Your task to perform on an android device: turn on priority inbox in the gmail app Image 0: 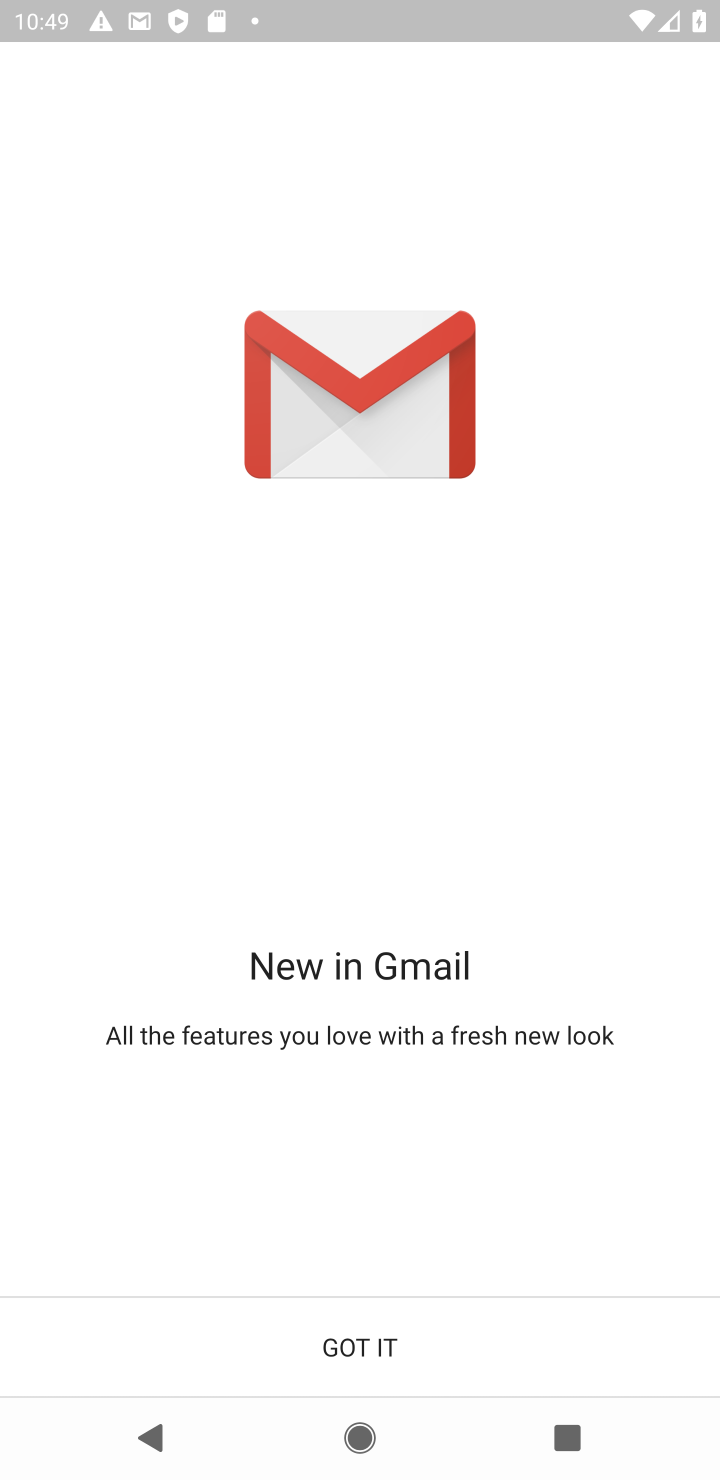
Step 0: click (382, 1342)
Your task to perform on an android device: turn on priority inbox in the gmail app Image 1: 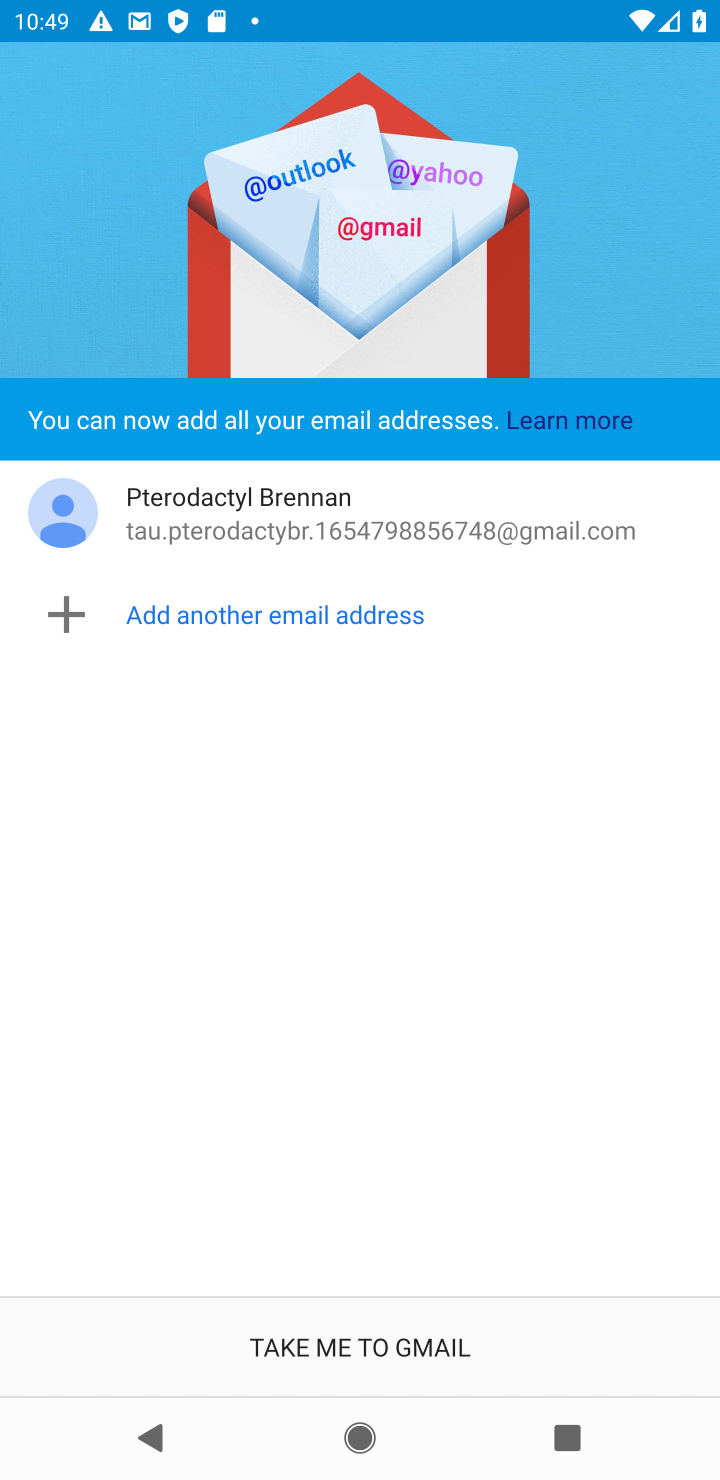
Step 1: click (370, 1340)
Your task to perform on an android device: turn on priority inbox in the gmail app Image 2: 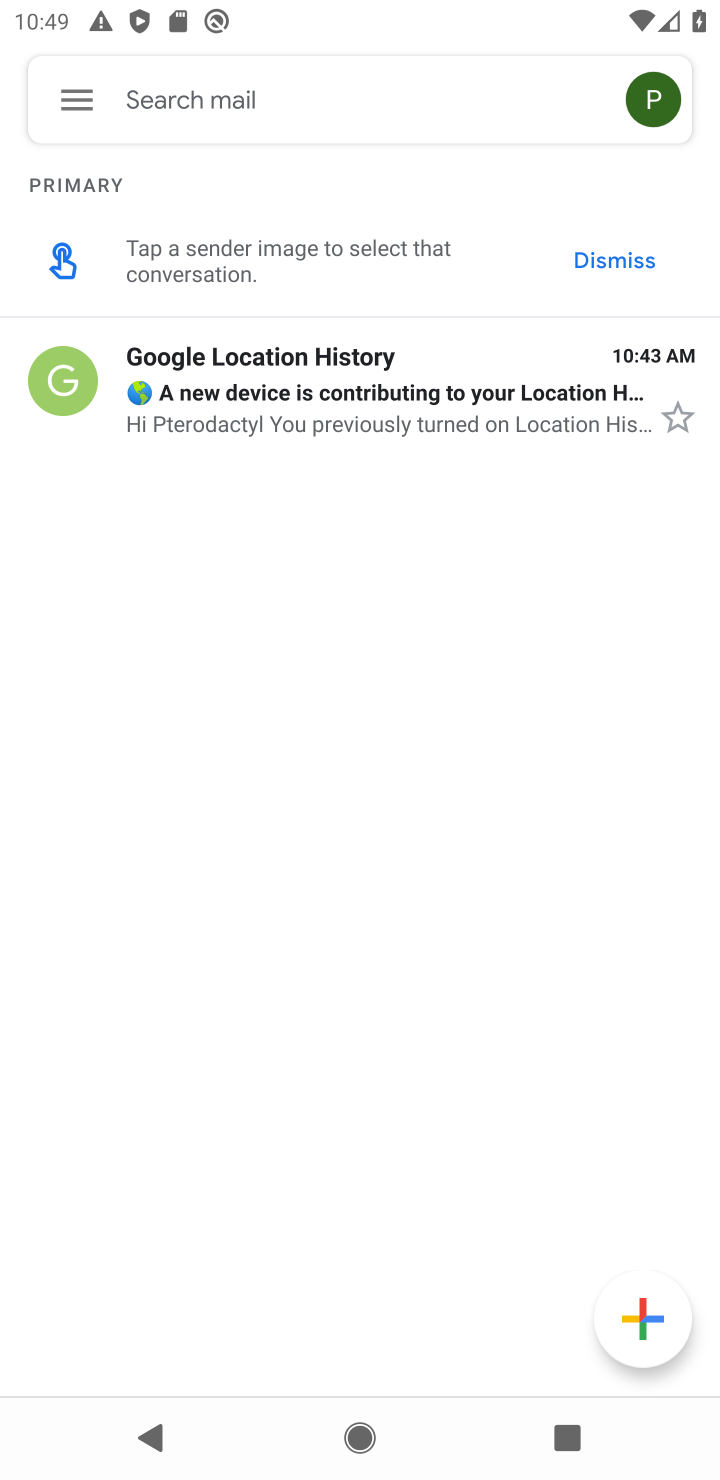
Step 2: click (65, 111)
Your task to perform on an android device: turn on priority inbox in the gmail app Image 3: 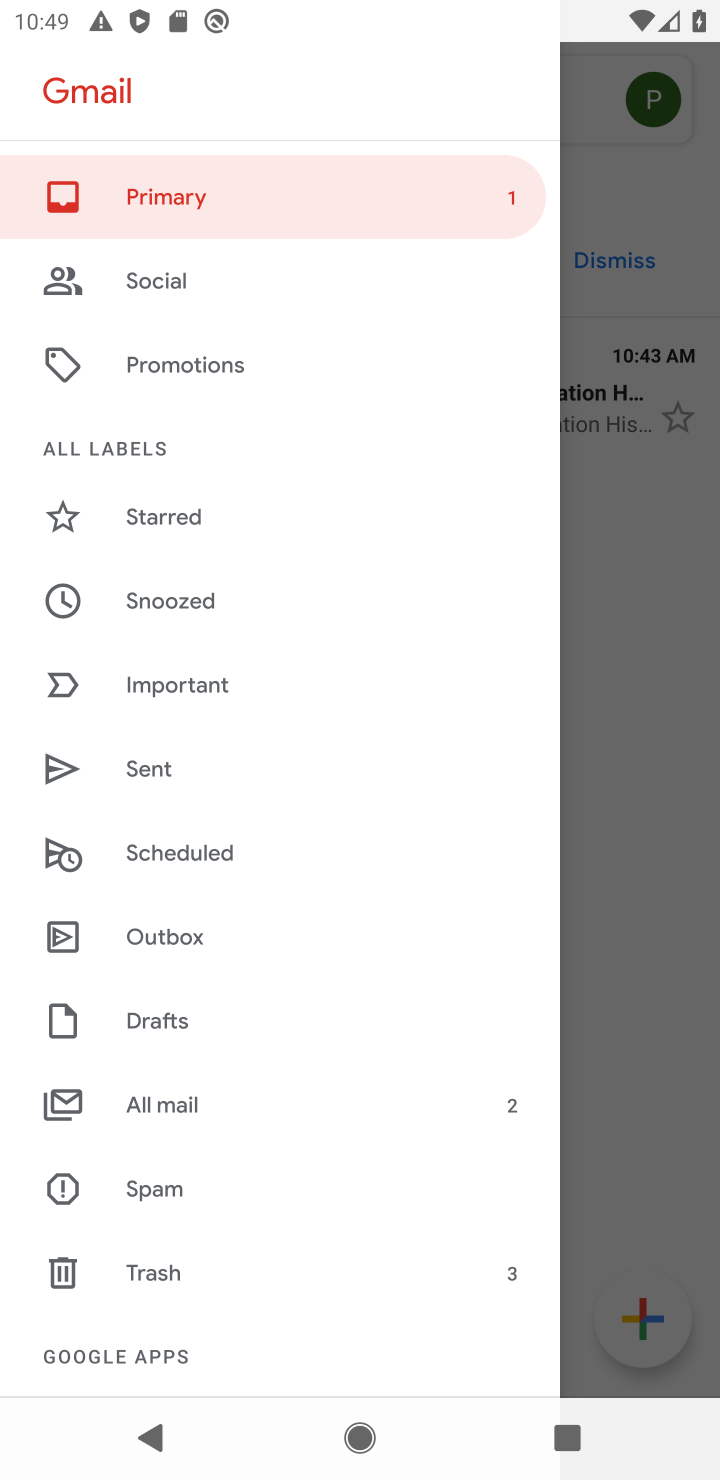
Step 3: drag from (224, 1107) to (224, 515)
Your task to perform on an android device: turn on priority inbox in the gmail app Image 4: 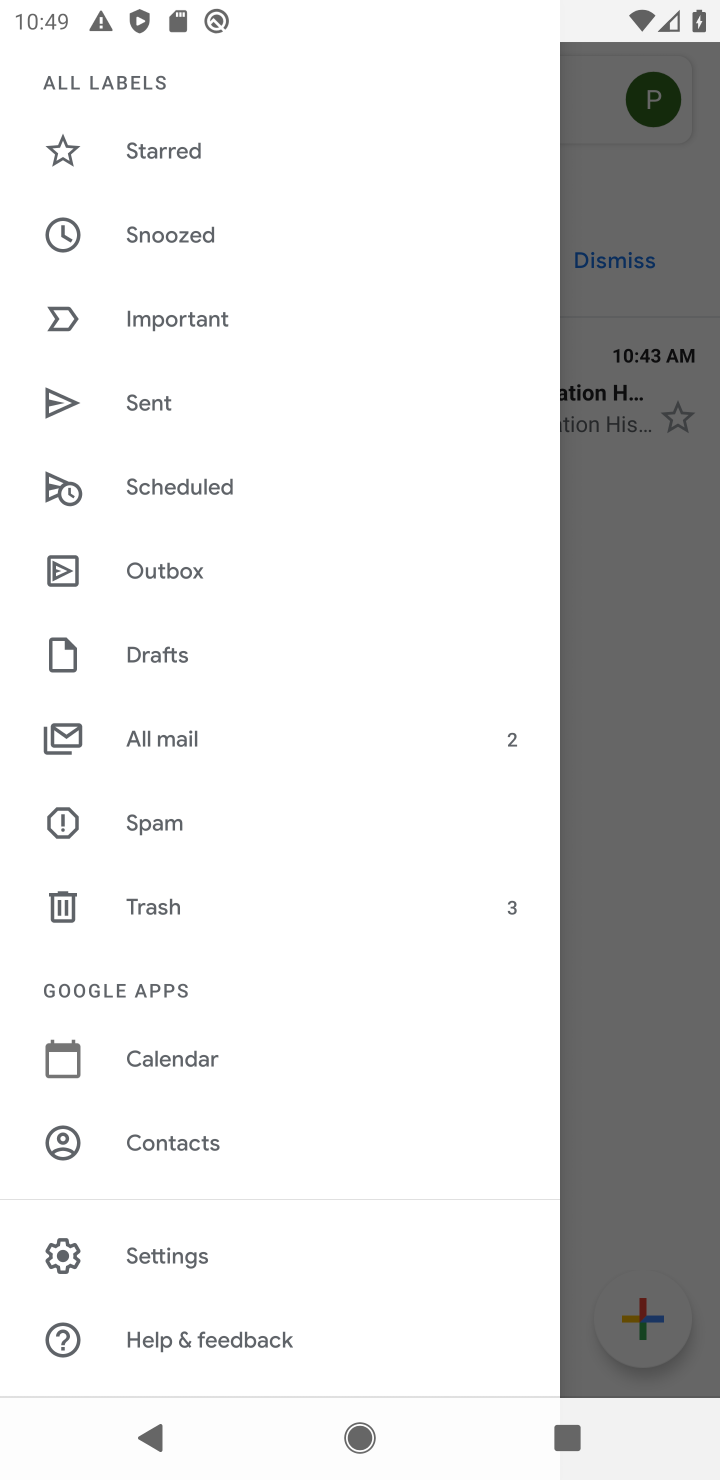
Step 4: click (173, 1265)
Your task to perform on an android device: turn on priority inbox in the gmail app Image 5: 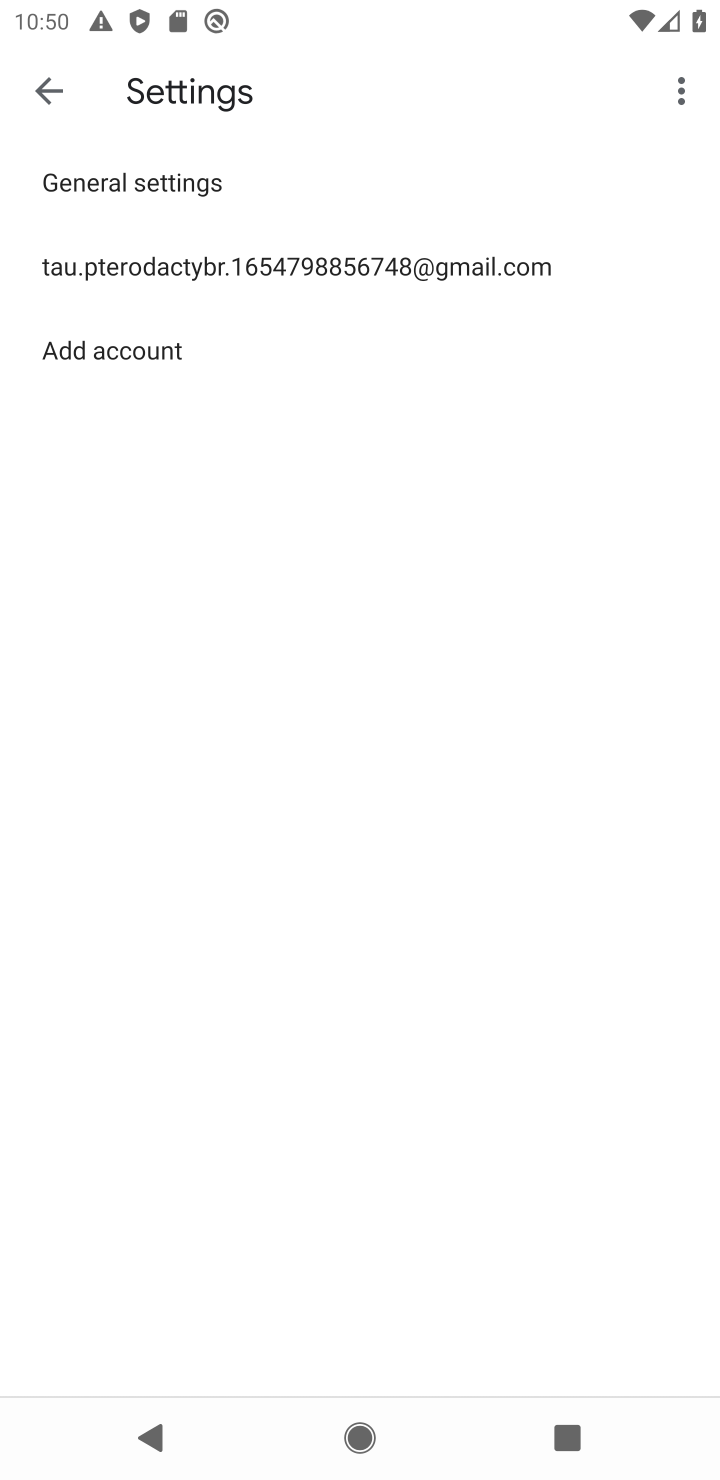
Step 5: click (170, 277)
Your task to perform on an android device: turn on priority inbox in the gmail app Image 6: 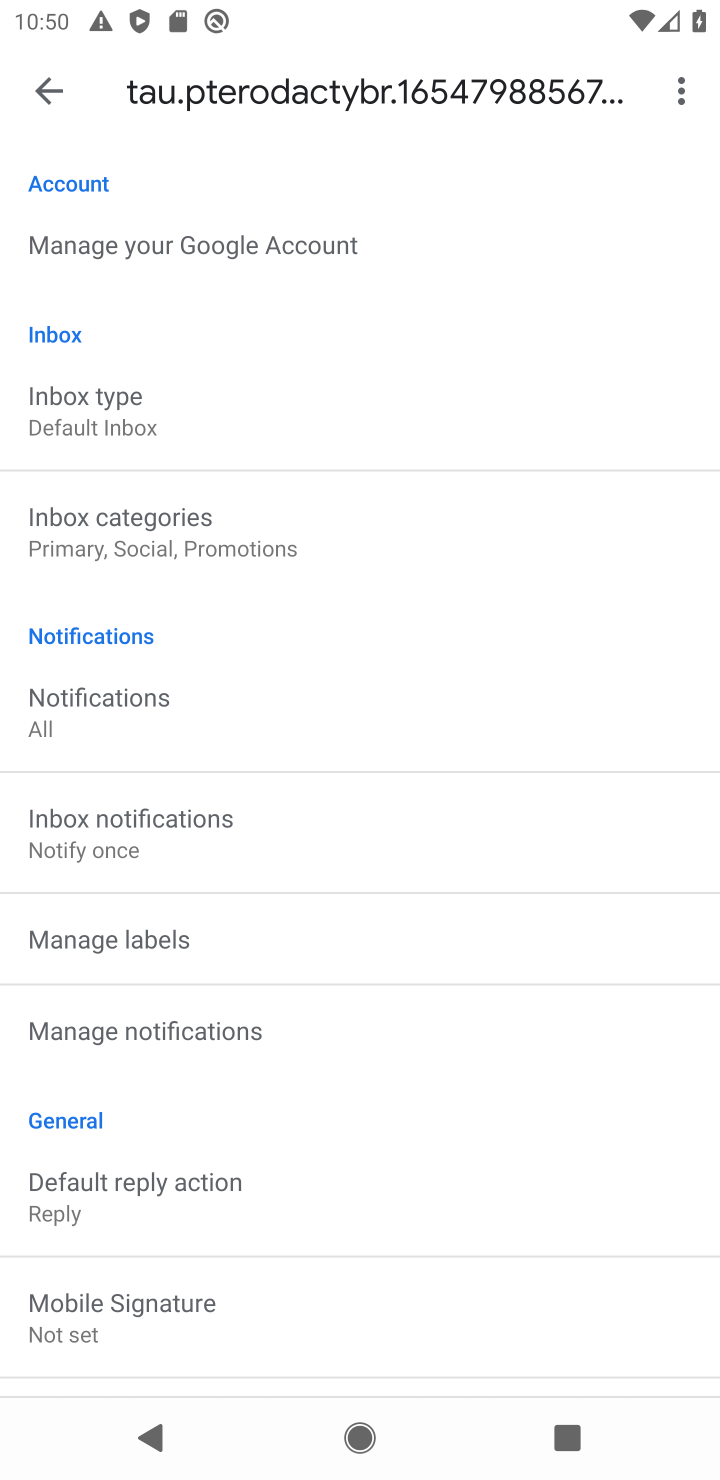
Step 6: click (65, 420)
Your task to perform on an android device: turn on priority inbox in the gmail app Image 7: 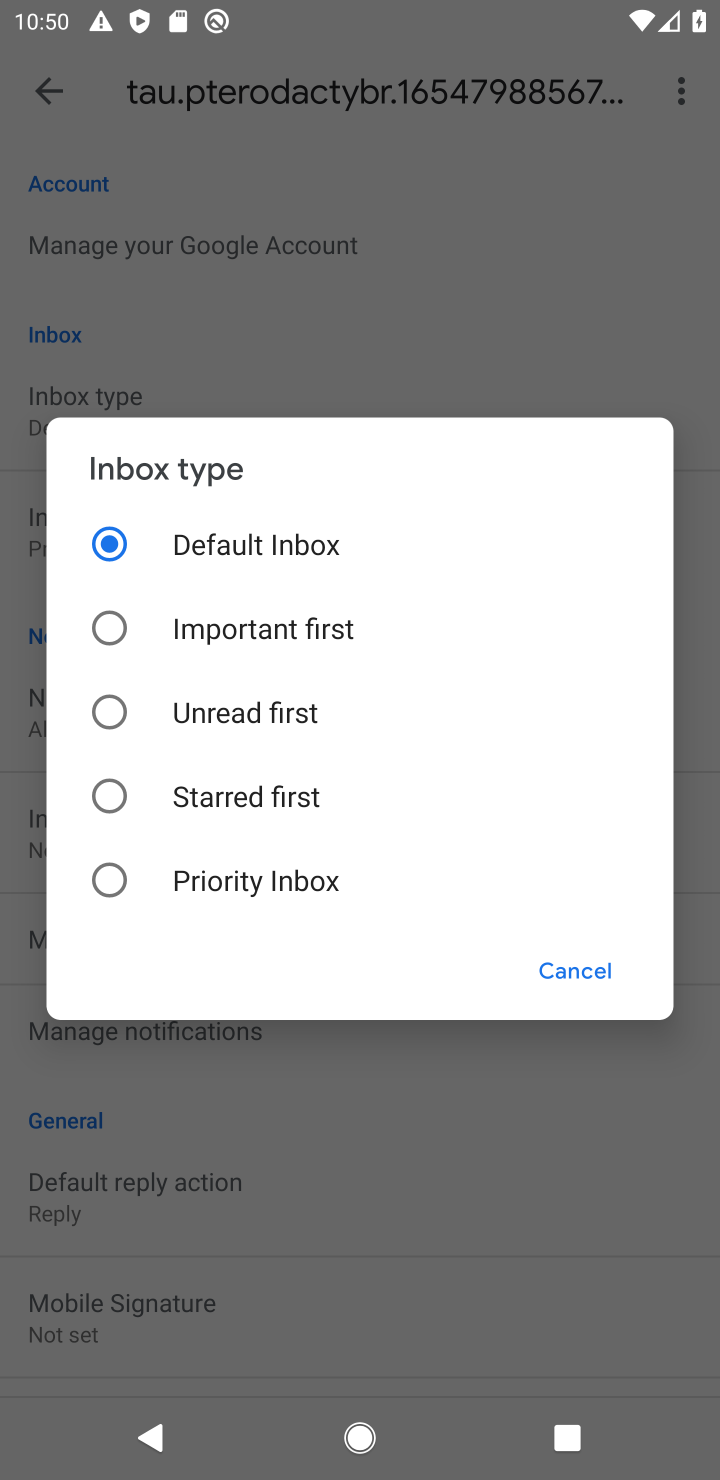
Step 7: click (111, 866)
Your task to perform on an android device: turn on priority inbox in the gmail app Image 8: 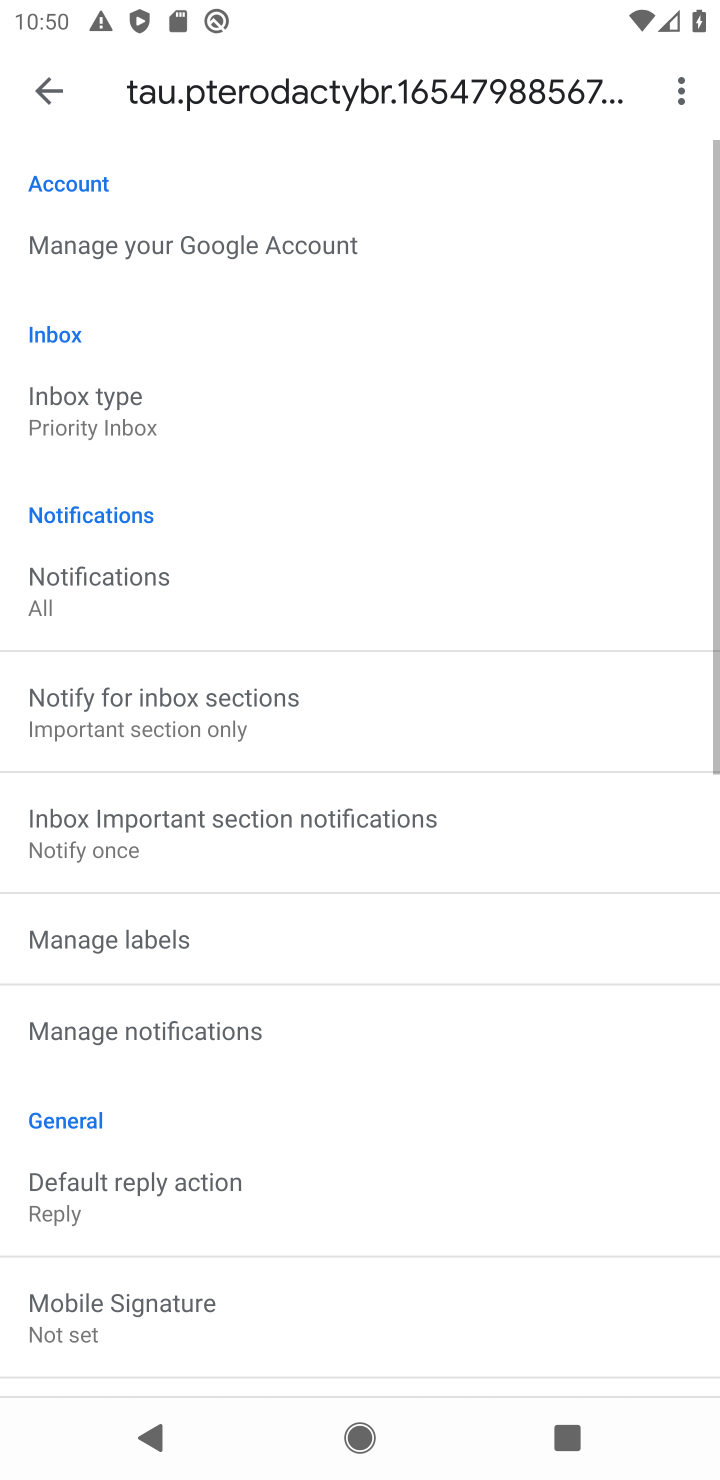
Step 8: task complete